Your task to perform on an android device: create a new album in the google photos Image 0: 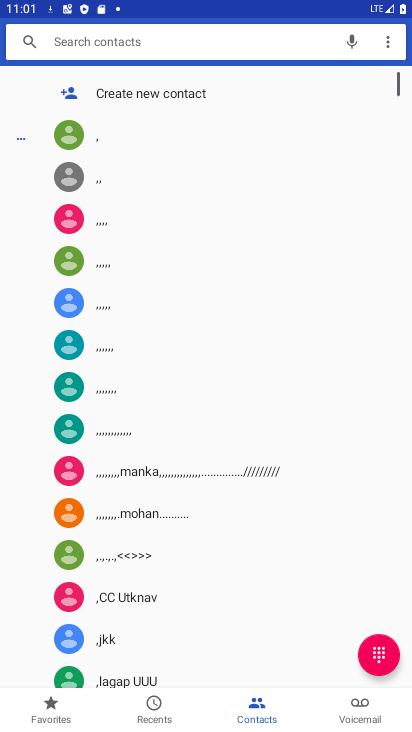
Step 0: press home button
Your task to perform on an android device: create a new album in the google photos Image 1: 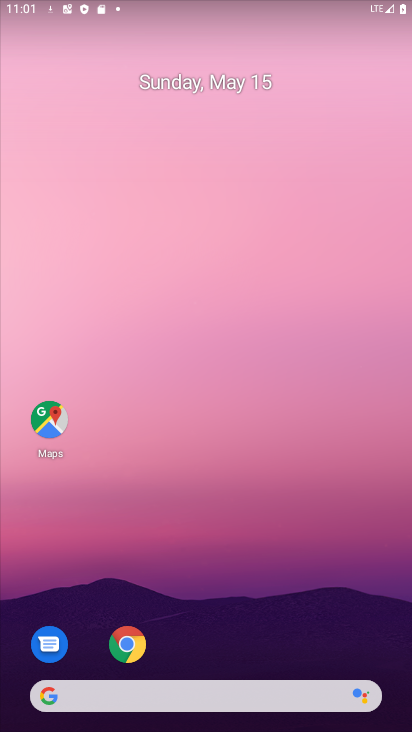
Step 1: drag from (301, 680) to (257, 240)
Your task to perform on an android device: create a new album in the google photos Image 2: 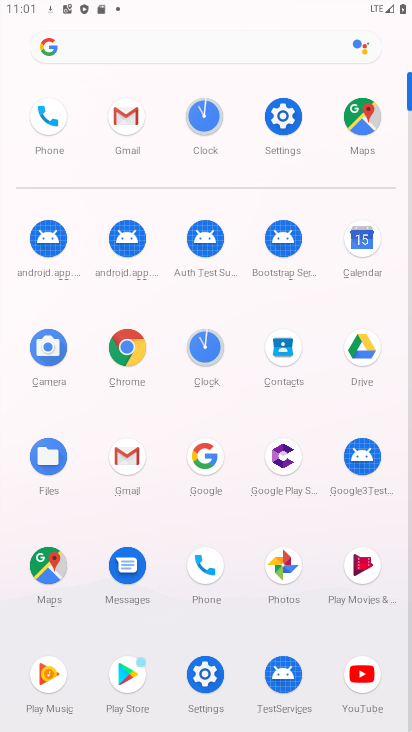
Step 2: click (275, 564)
Your task to perform on an android device: create a new album in the google photos Image 3: 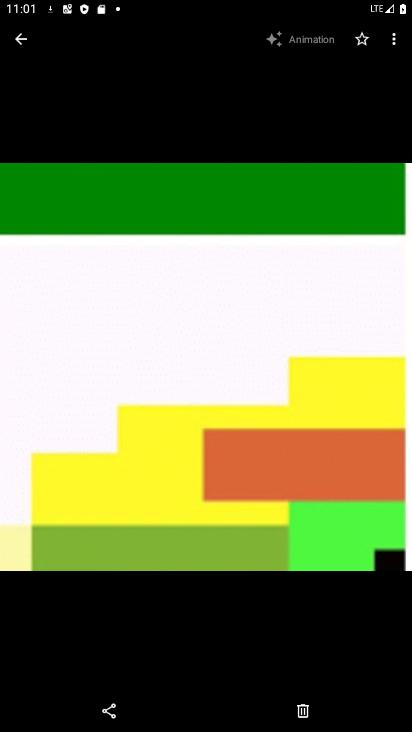
Step 3: click (19, 48)
Your task to perform on an android device: create a new album in the google photos Image 4: 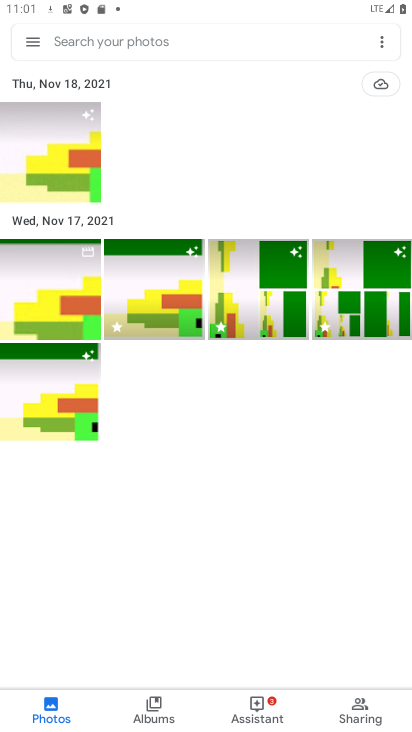
Step 4: click (133, 276)
Your task to perform on an android device: create a new album in the google photos Image 5: 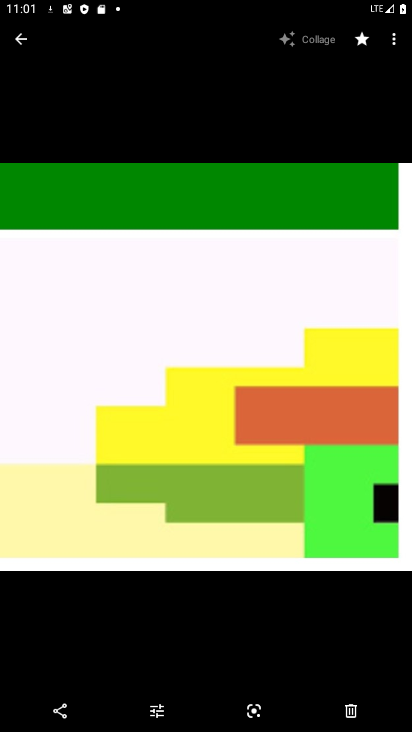
Step 5: click (391, 41)
Your task to perform on an android device: create a new album in the google photos Image 6: 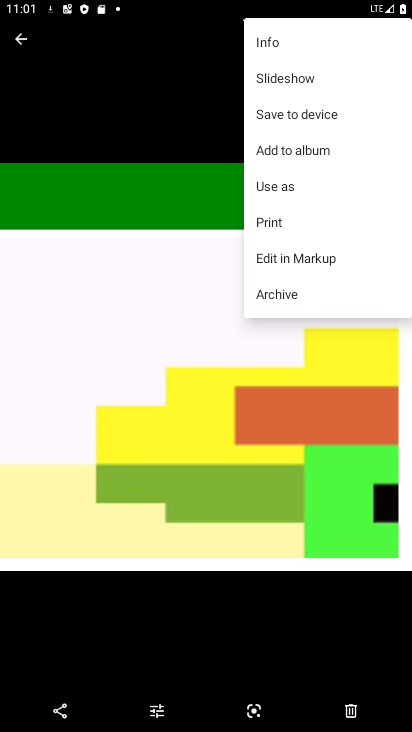
Step 6: click (317, 139)
Your task to perform on an android device: create a new album in the google photos Image 7: 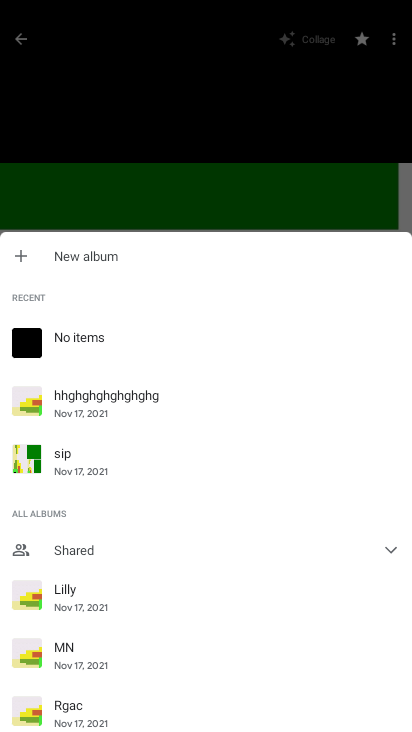
Step 7: click (123, 254)
Your task to perform on an android device: create a new album in the google photos Image 8: 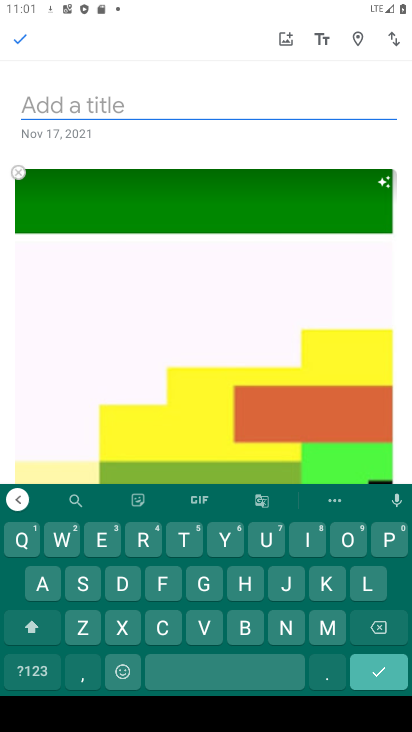
Step 8: click (170, 543)
Your task to perform on an android device: create a new album in the google photos Image 9: 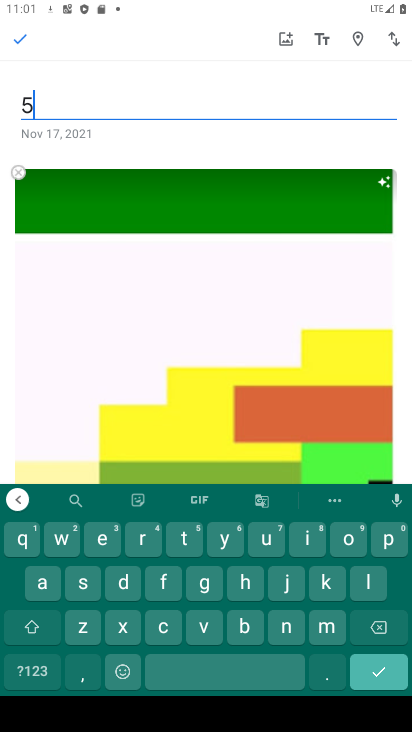
Step 9: click (147, 568)
Your task to perform on an android device: create a new album in the google photos Image 10: 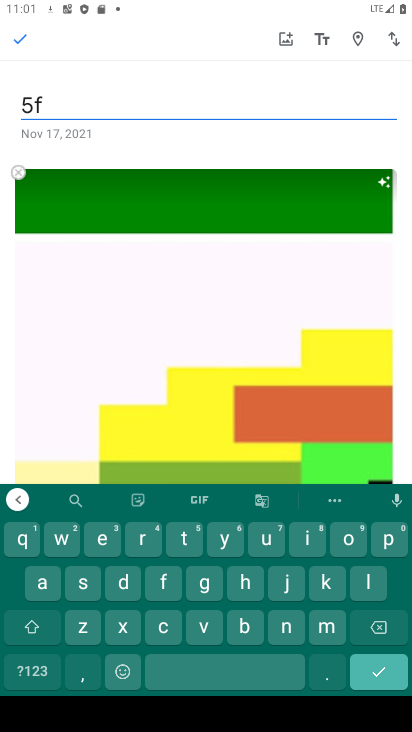
Step 10: click (238, 582)
Your task to perform on an android device: create a new album in the google photos Image 11: 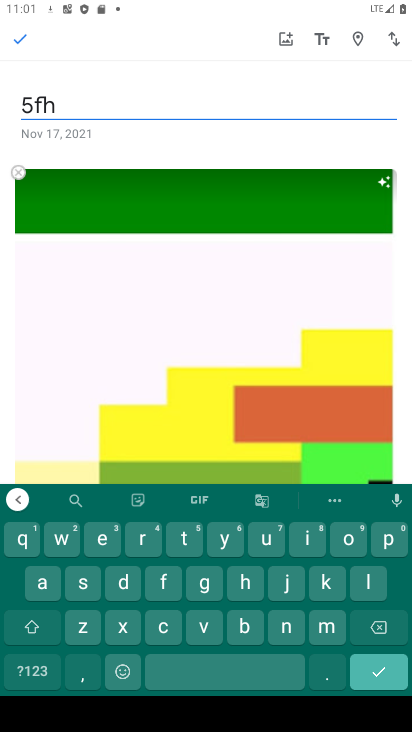
Step 11: click (16, 47)
Your task to perform on an android device: create a new album in the google photos Image 12: 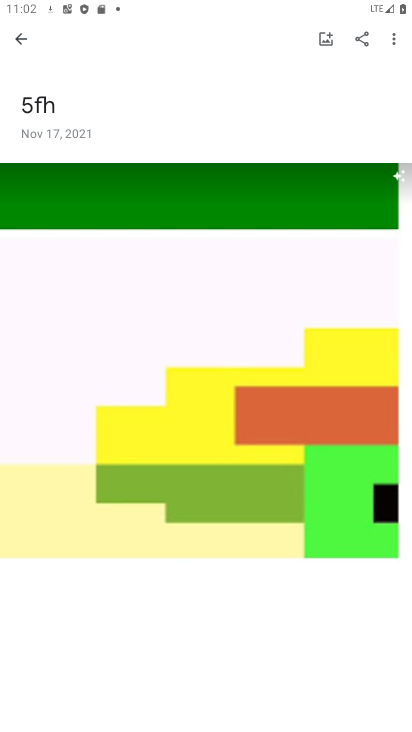
Step 12: task complete